Your task to perform on an android device: Is it going to rain tomorrow? Image 0: 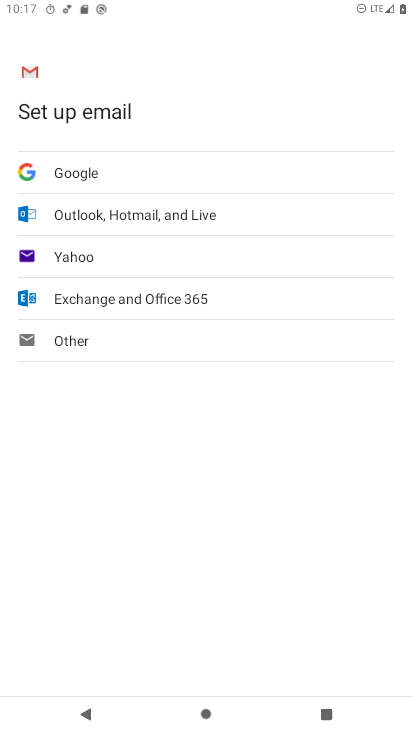
Step 0: press home button
Your task to perform on an android device: Is it going to rain tomorrow? Image 1: 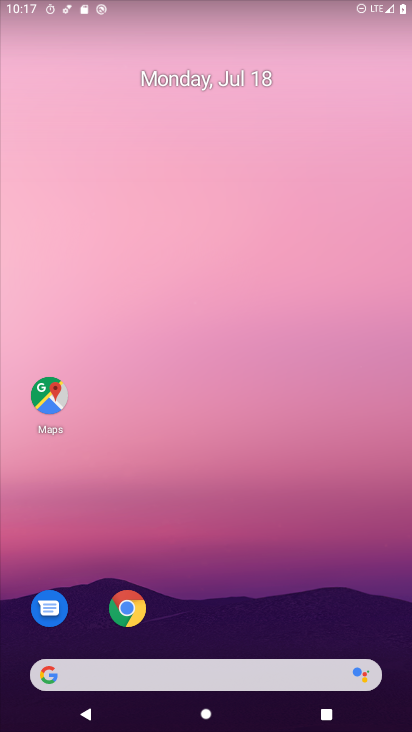
Step 1: click (178, 664)
Your task to perform on an android device: Is it going to rain tomorrow? Image 2: 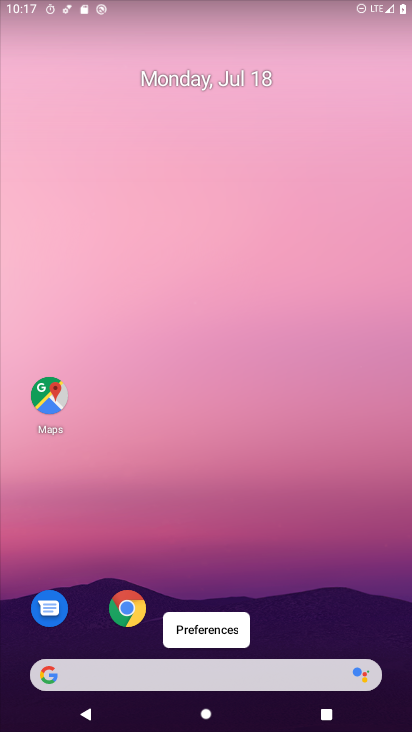
Step 2: click (128, 695)
Your task to perform on an android device: Is it going to rain tomorrow? Image 3: 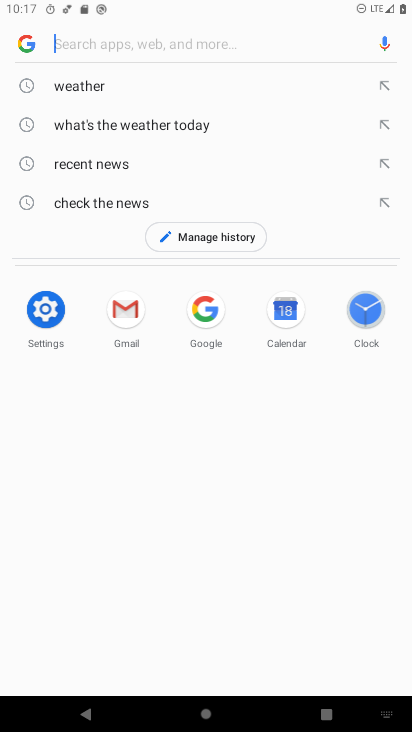
Step 3: click (66, 86)
Your task to perform on an android device: Is it going to rain tomorrow? Image 4: 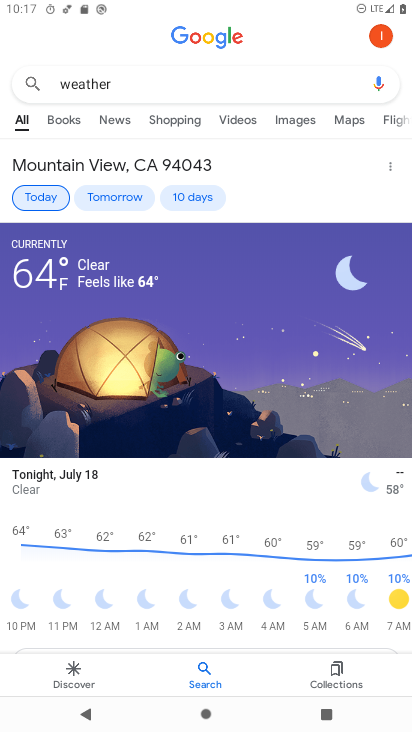
Step 4: click (101, 195)
Your task to perform on an android device: Is it going to rain tomorrow? Image 5: 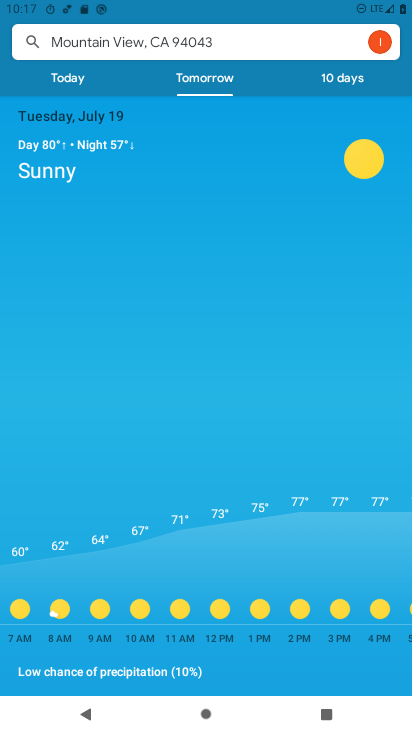
Step 5: task complete